Your task to perform on an android device: check android version Image 0: 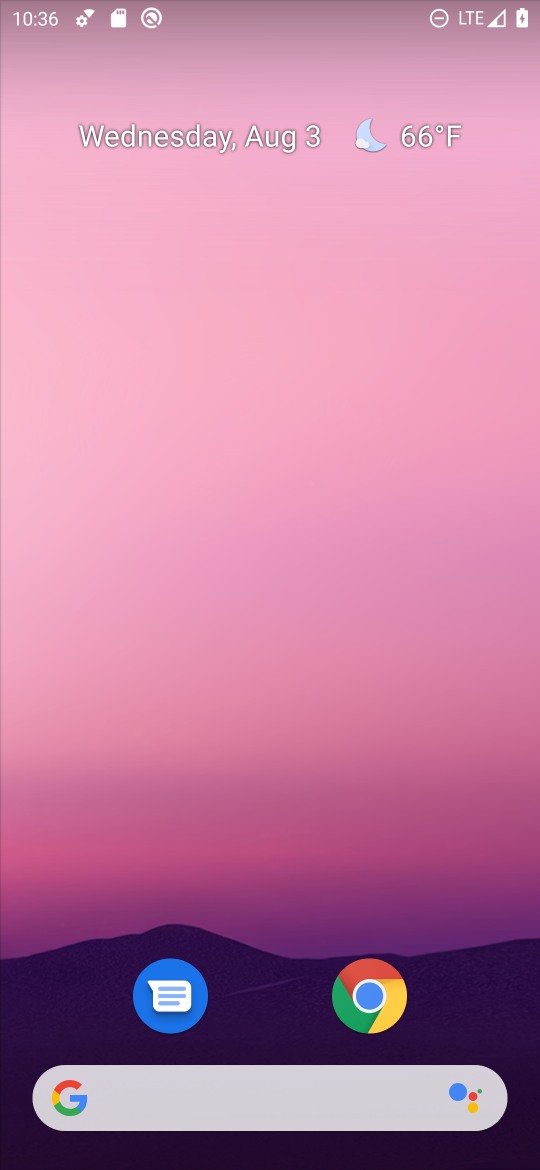
Step 0: drag from (278, 887) to (281, 25)
Your task to perform on an android device: check android version Image 1: 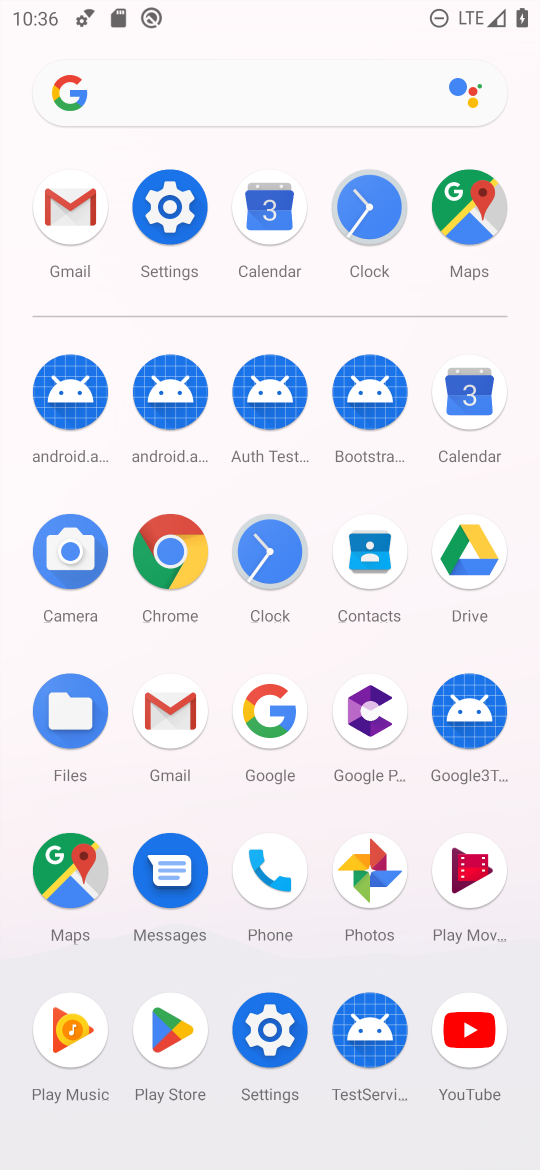
Step 1: click (173, 214)
Your task to perform on an android device: check android version Image 2: 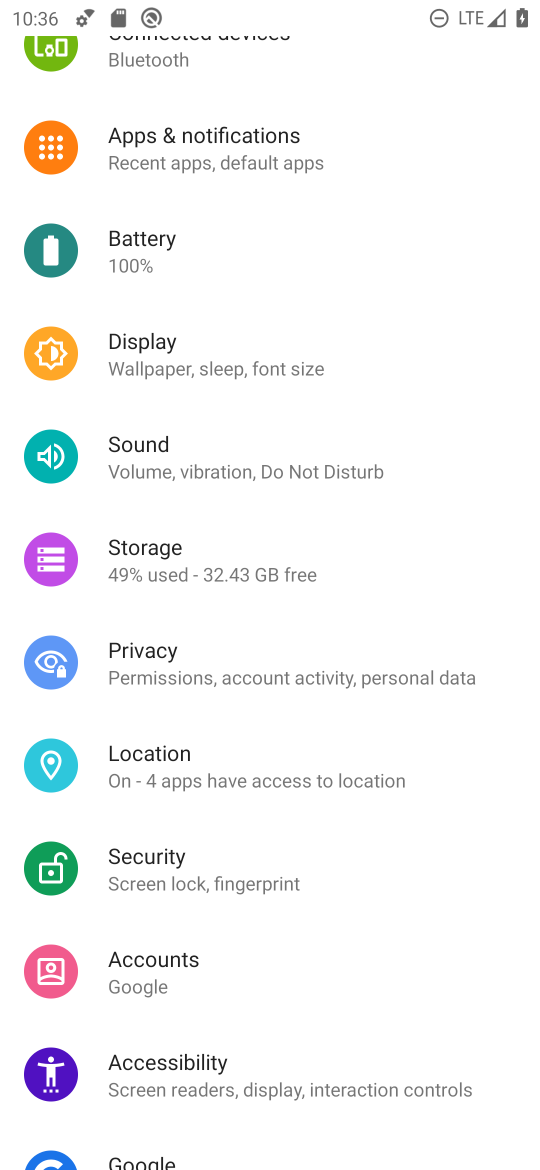
Step 2: drag from (315, 965) to (193, 335)
Your task to perform on an android device: check android version Image 3: 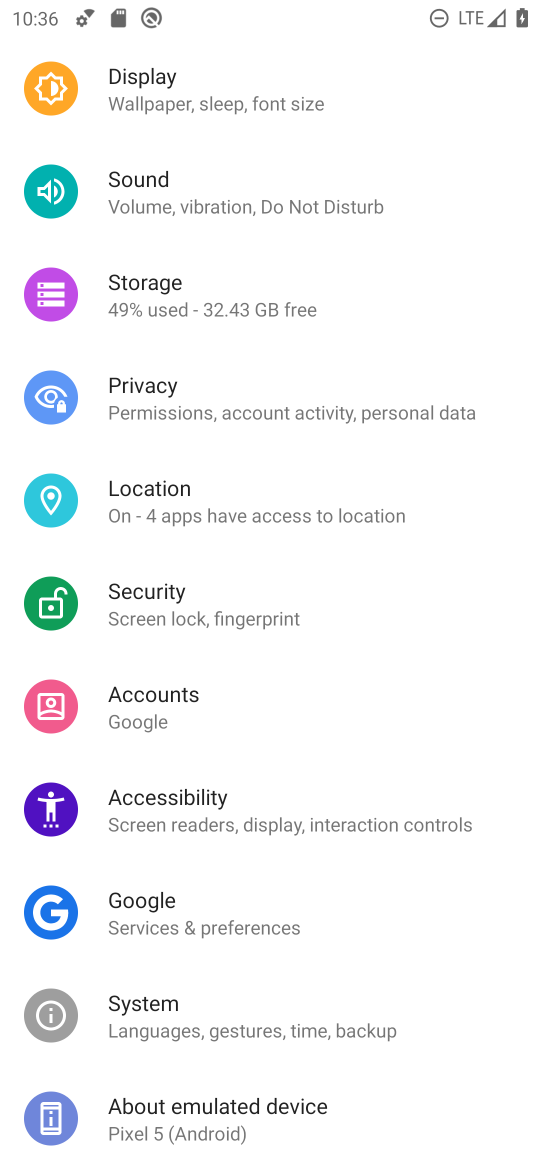
Step 3: click (235, 1101)
Your task to perform on an android device: check android version Image 4: 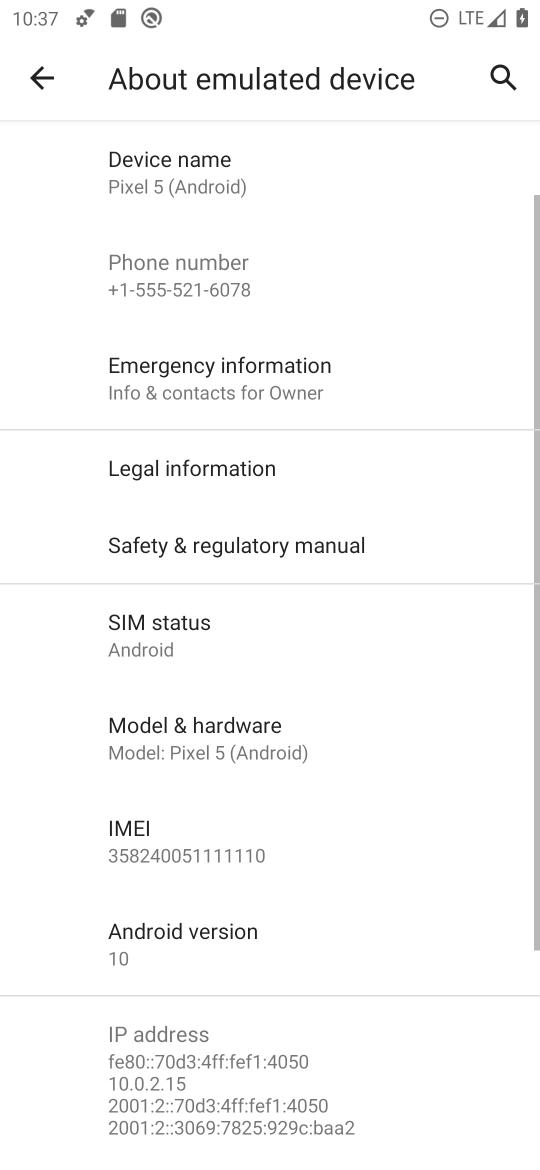
Step 4: click (266, 950)
Your task to perform on an android device: check android version Image 5: 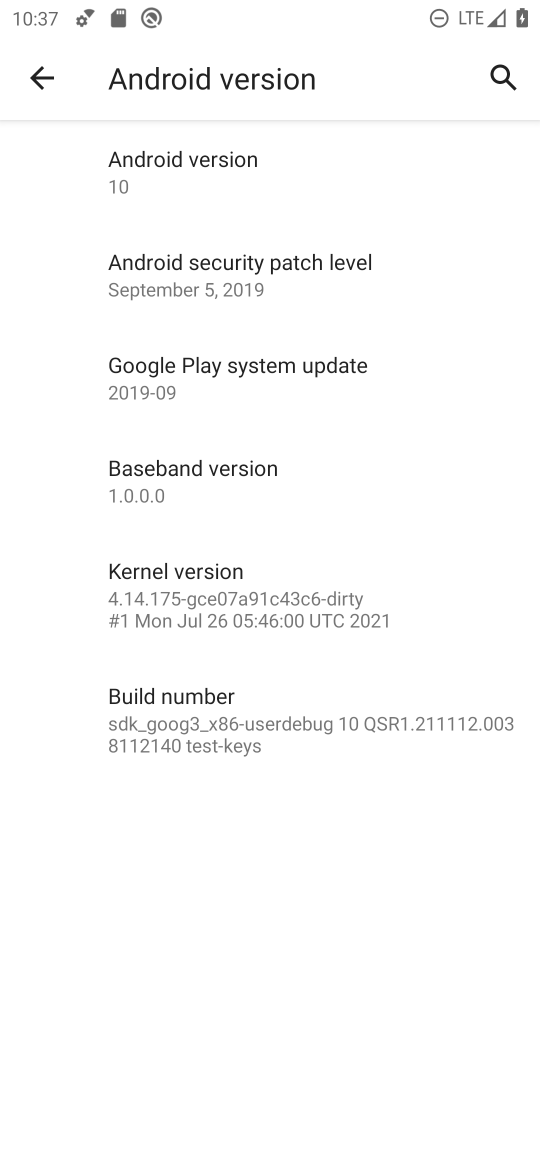
Step 5: task complete